Your task to perform on an android device: Open the map Image 0: 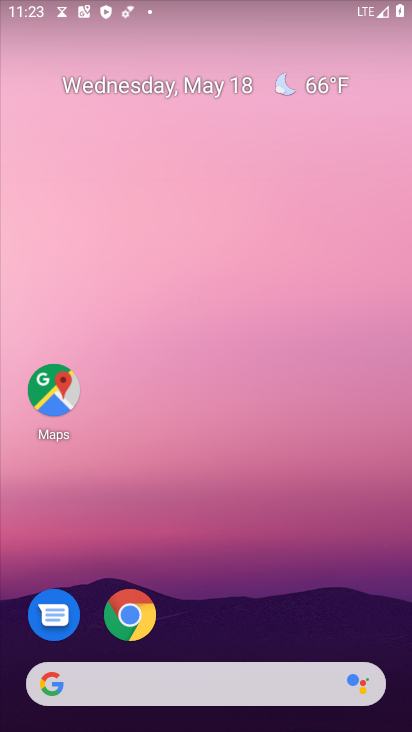
Step 0: drag from (229, 600) to (218, 29)
Your task to perform on an android device: Open the map Image 1: 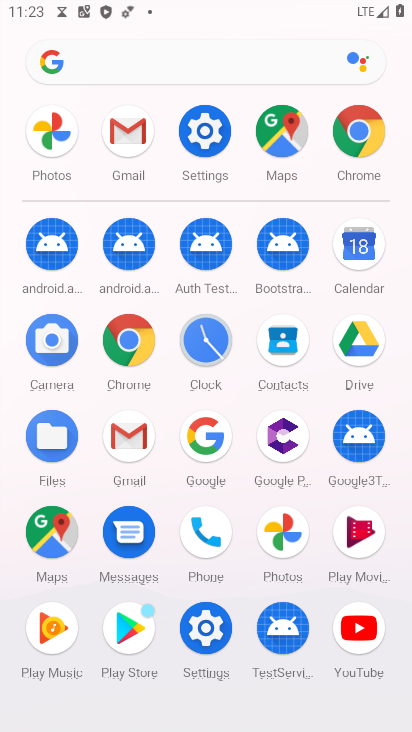
Step 1: click (286, 130)
Your task to perform on an android device: Open the map Image 2: 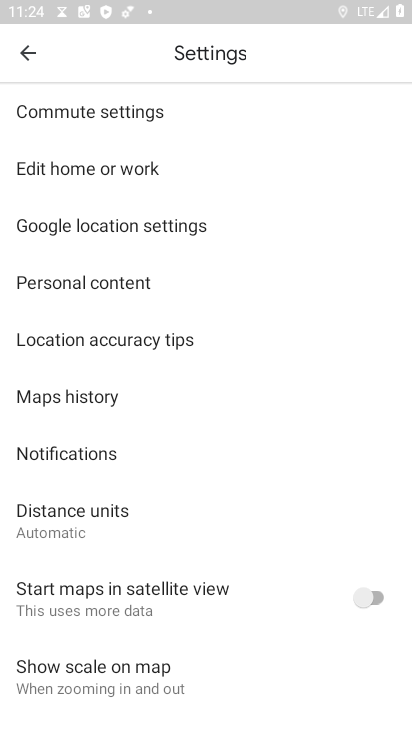
Step 2: click (14, 51)
Your task to perform on an android device: Open the map Image 3: 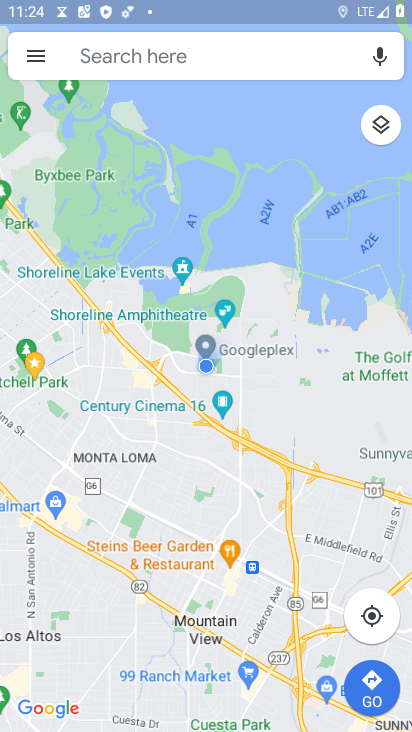
Step 3: task complete